Your task to perform on an android device: open the mobile data screen to see how much data has been used Image 0: 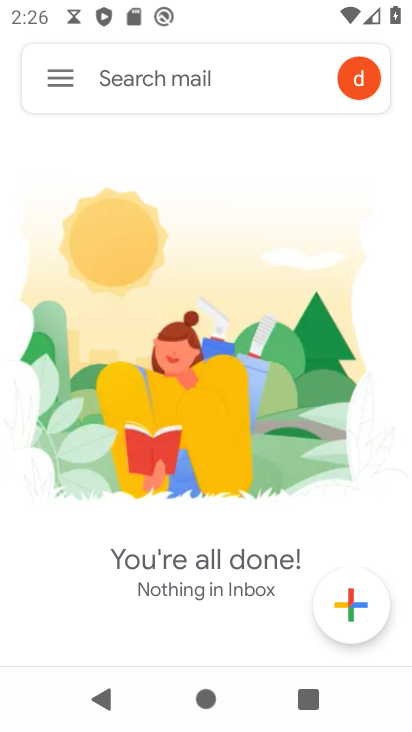
Step 0: press home button
Your task to perform on an android device: open the mobile data screen to see how much data has been used Image 1: 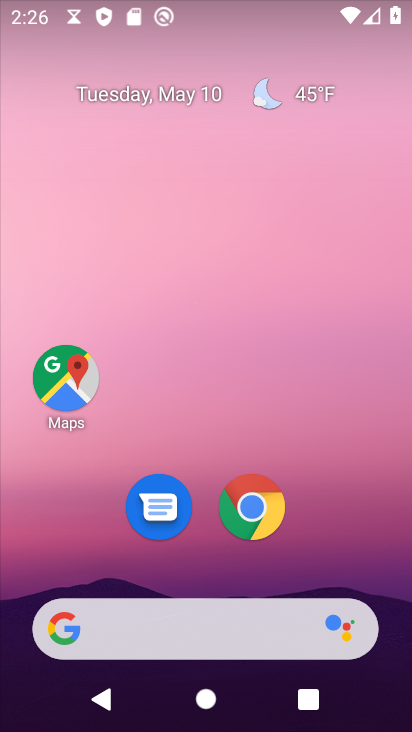
Step 1: drag from (330, 502) to (22, 124)
Your task to perform on an android device: open the mobile data screen to see how much data has been used Image 2: 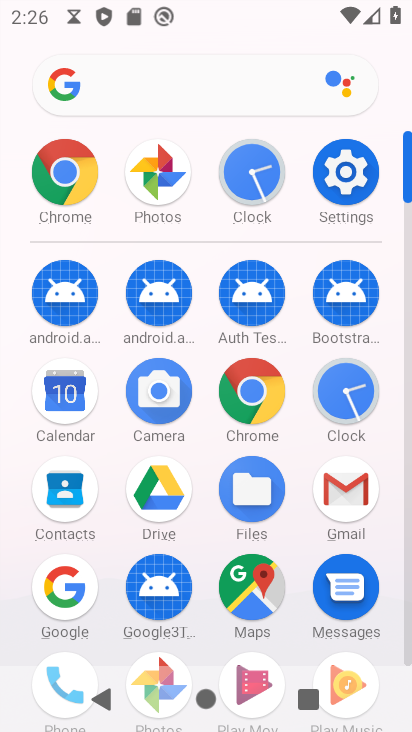
Step 2: click (339, 161)
Your task to perform on an android device: open the mobile data screen to see how much data has been used Image 3: 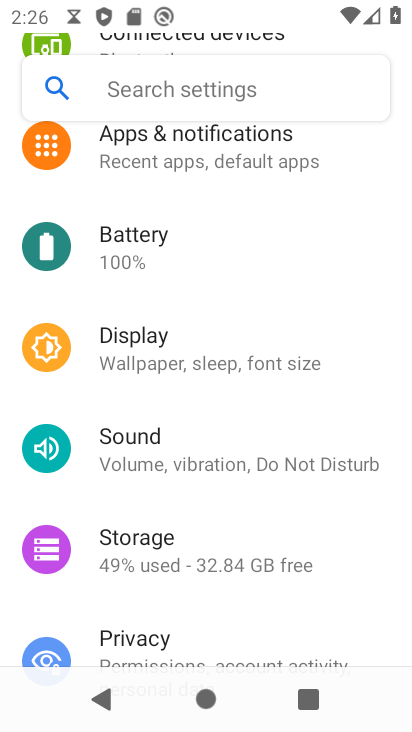
Step 3: drag from (202, 209) to (165, 591)
Your task to perform on an android device: open the mobile data screen to see how much data has been used Image 4: 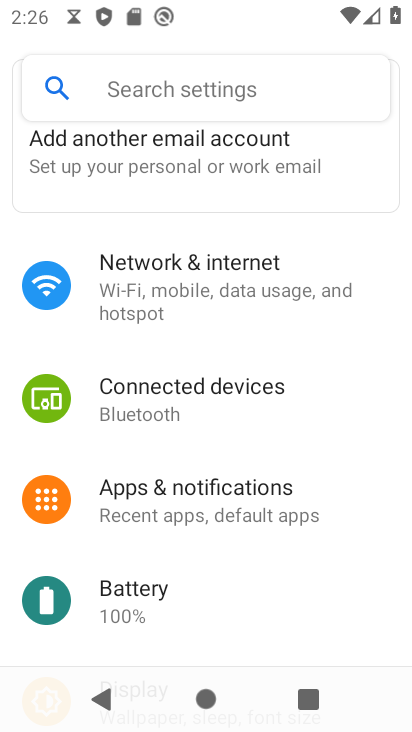
Step 4: click (162, 274)
Your task to perform on an android device: open the mobile data screen to see how much data has been used Image 5: 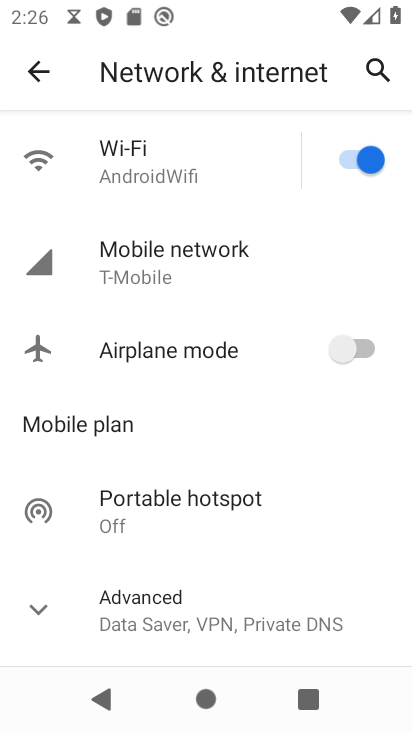
Step 5: click (162, 274)
Your task to perform on an android device: open the mobile data screen to see how much data has been used Image 6: 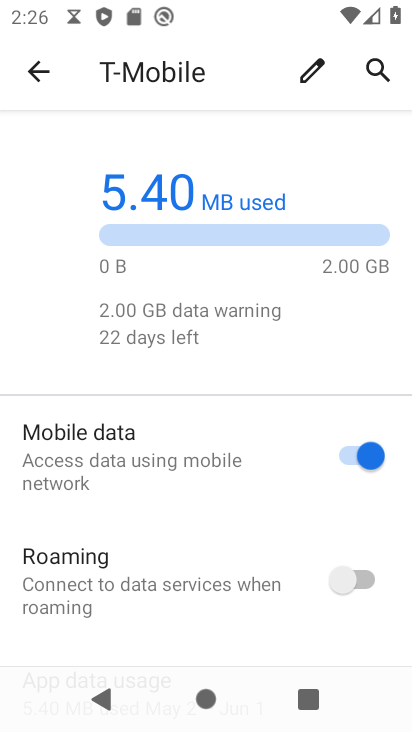
Step 6: task complete